Your task to perform on an android device: Open Chrome and go to the settings page Image 0: 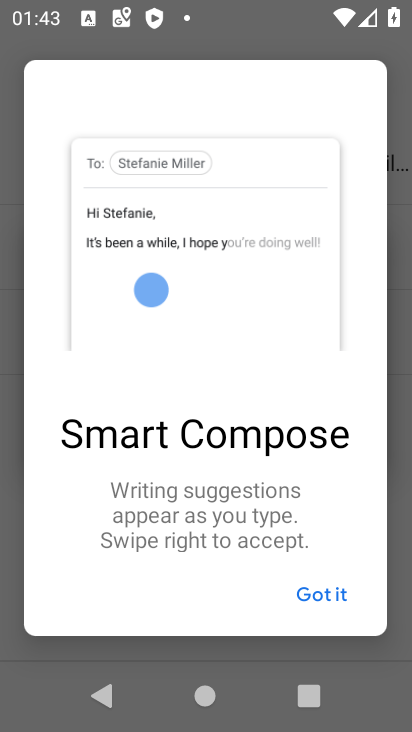
Step 0: press home button
Your task to perform on an android device: Open Chrome and go to the settings page Image 1: 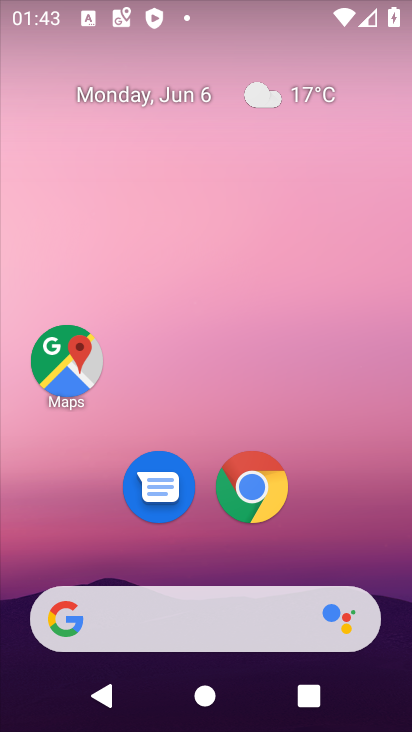
Step 1: click (254, 484)
Your task to perform on an android device: Open Chrome and go to the settings page Image 2: 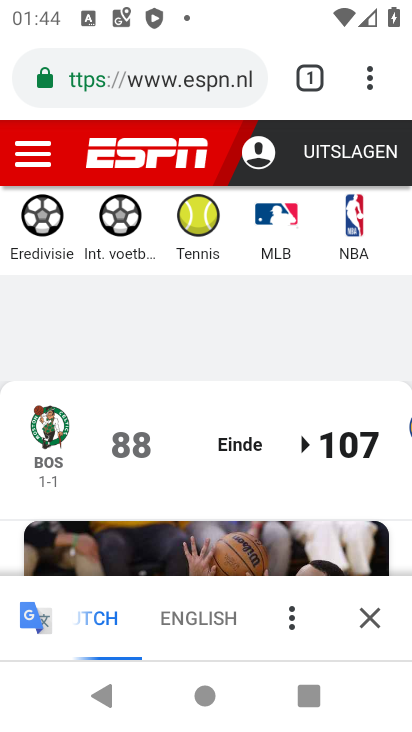
Step 2: click (365, 86)
Your task to perform on an android device: Open Chrome and go to the settings page Image 3: 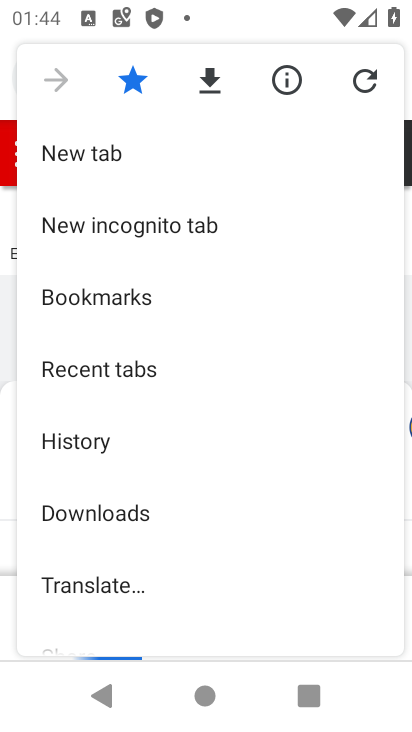
Step 3: drag from (199, 578) to (231, 223)
Your task to perform on an android device: Open Chrome and go to the settings page Image 4: 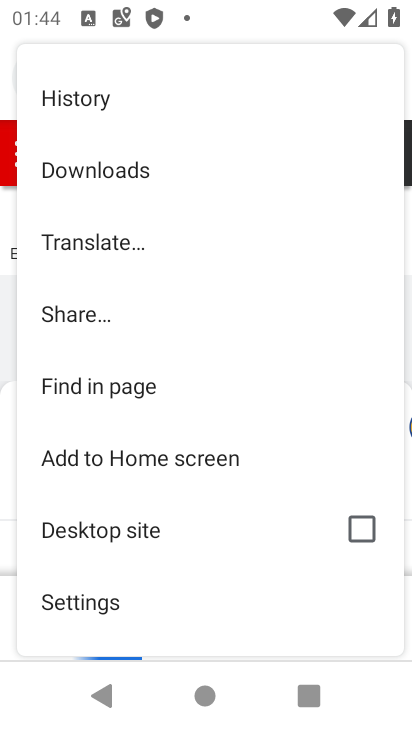
Step 4: click (76, 597)
Your task to perform on an android device: Open Chrome and go to the settings page Image 5: 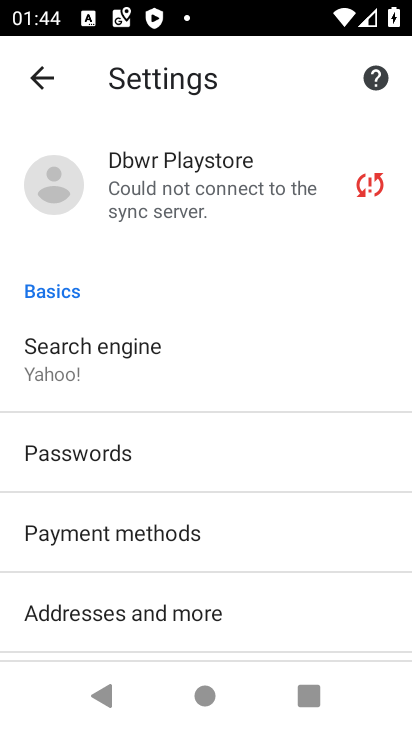
Step 5: task complete